Your task to perform on an android device: Open accessibility settings Image 0: 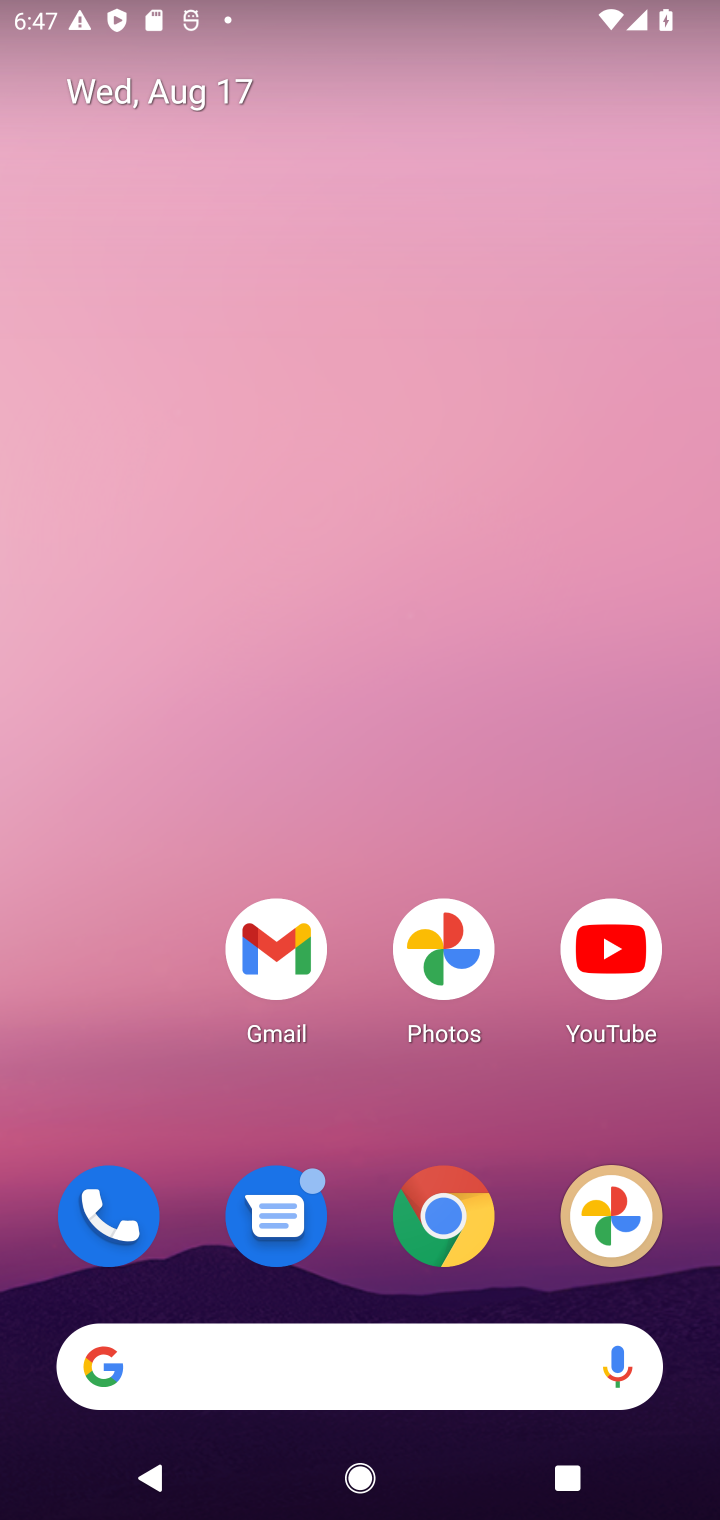
Step 0: drag from (521, 1078) to (667, 17)
Your task to perform on an android device: Open accessibility settings Image 1: 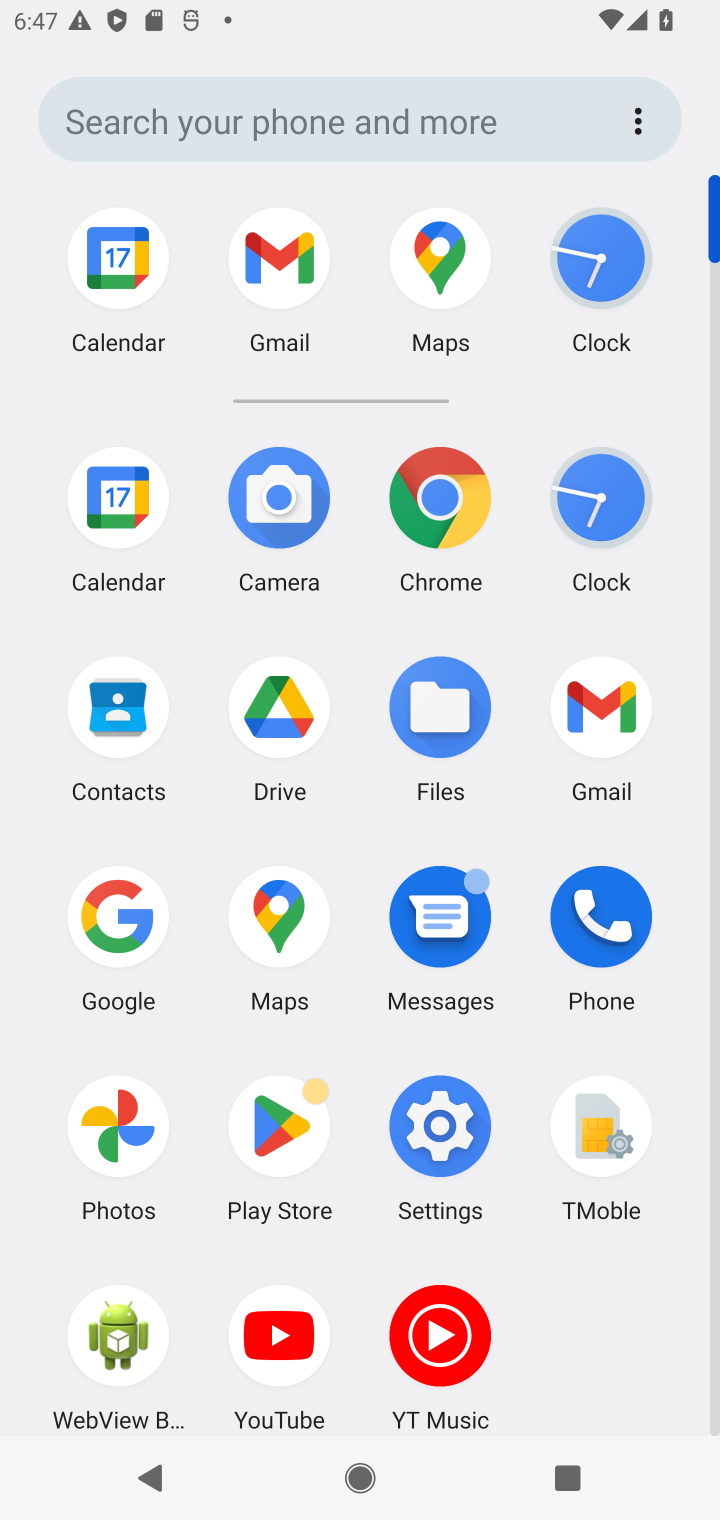
Step 1: click (466, 1129)
Your task to perform on an android device: Open accessibility settings Image 2: 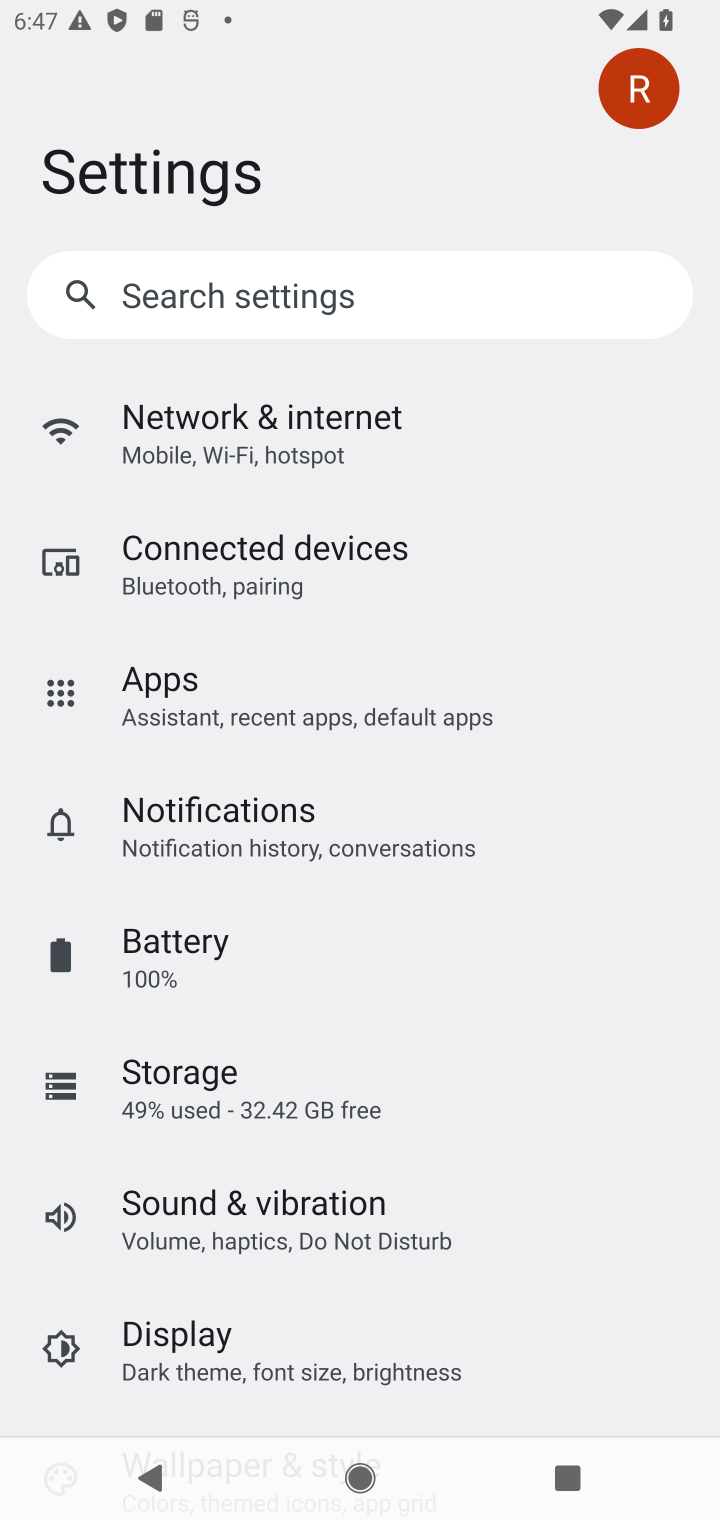
Step 2: drag from (277, 1299) to (406, 497)
Your task to perform on an android device: Open accessibility settings Image 3: 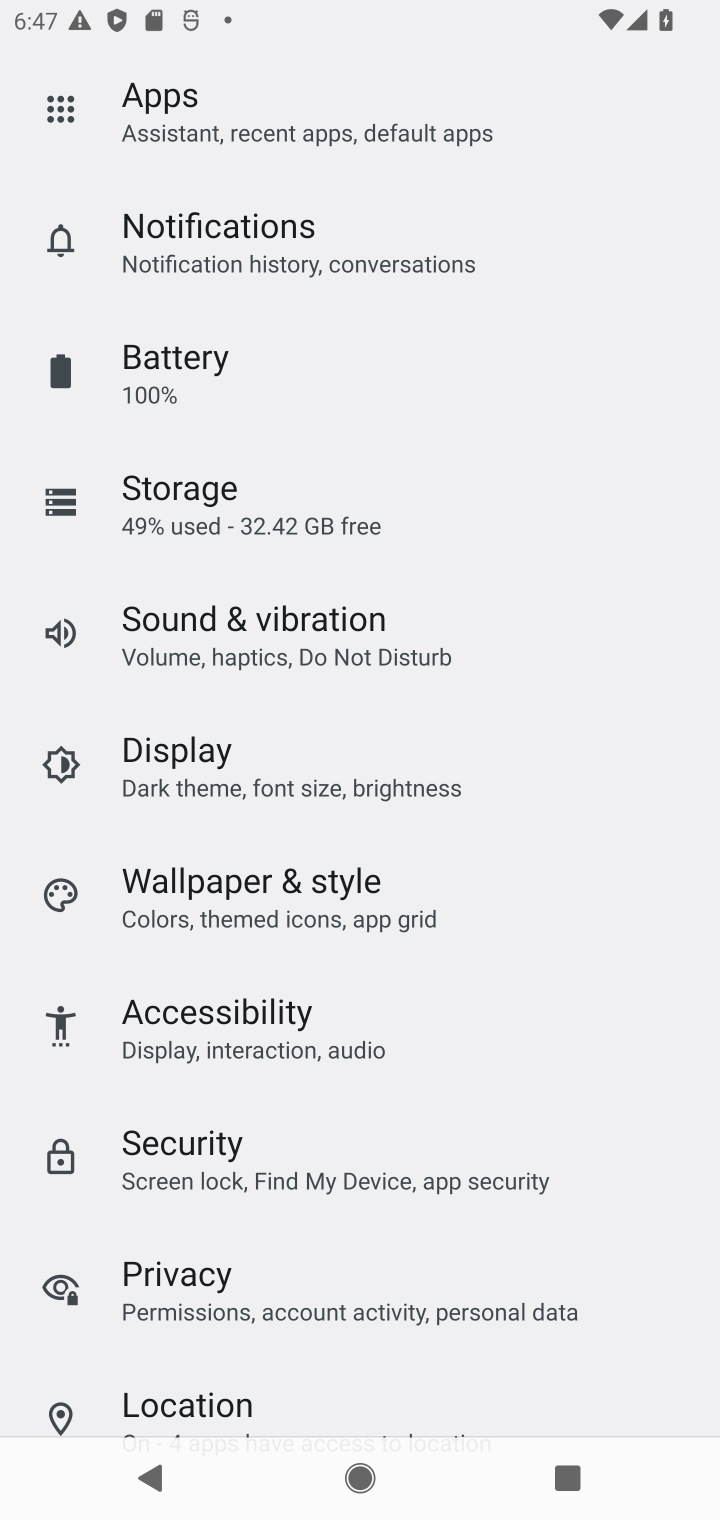
Step 3: click (204, 1018)
Your task to perform on an android device: Open accessibility settings Image 4: 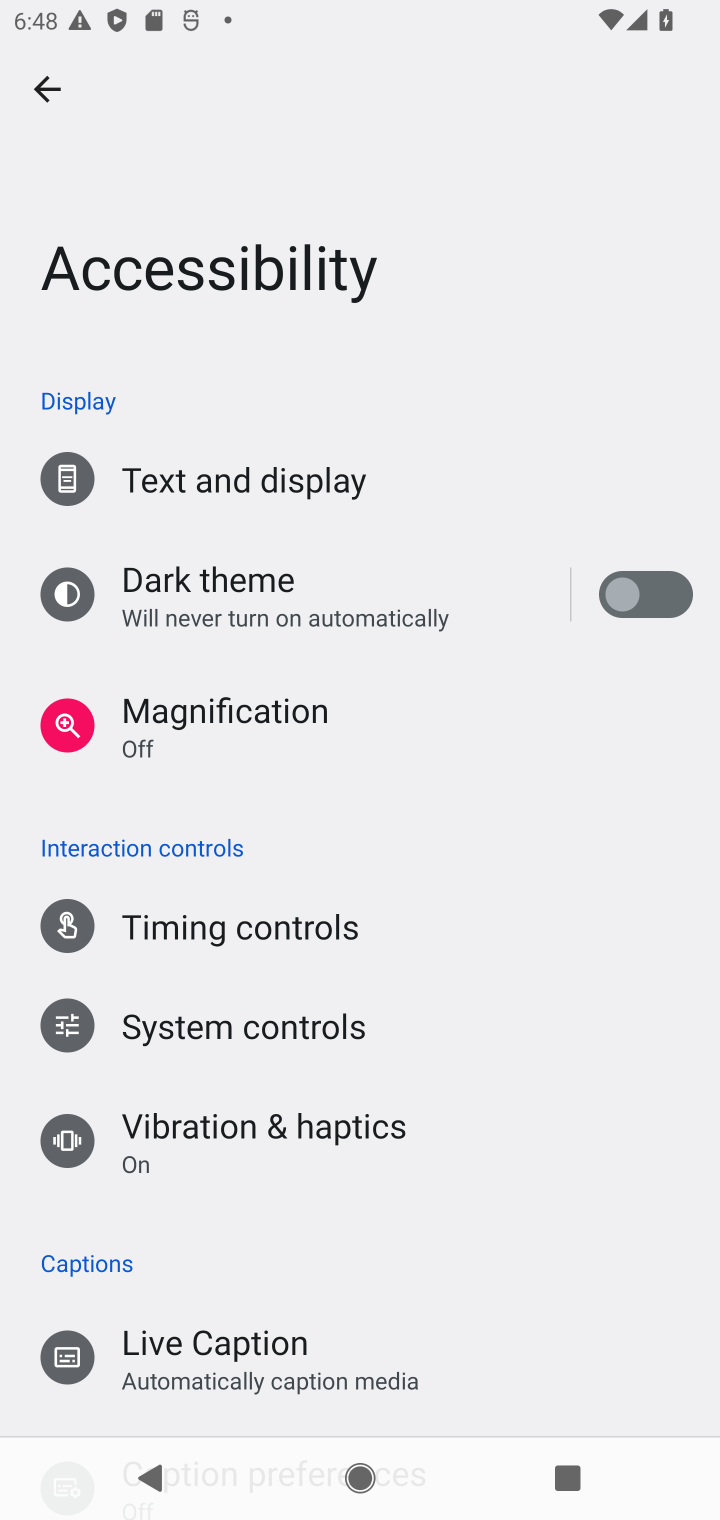
Step 4: task complete